Your task to perform on an android device: Open Amazon Image 0: 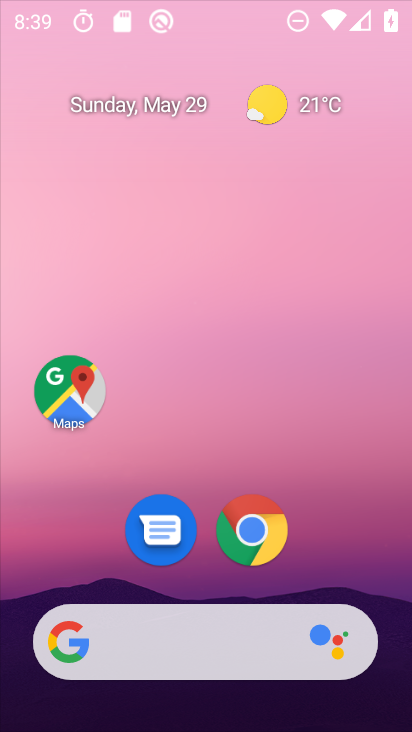
Step 0: click (240, 186)
Your task to perform on an android device: Open Amazon Image 1: 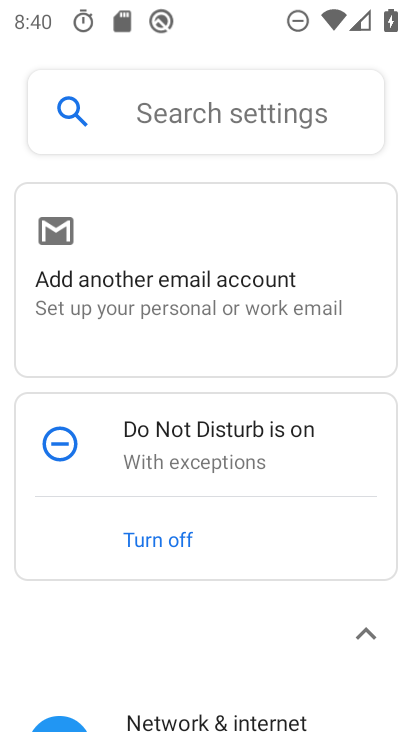
Step 1: press home button
Your task to perform on an android device: Open Amazon Image 2: 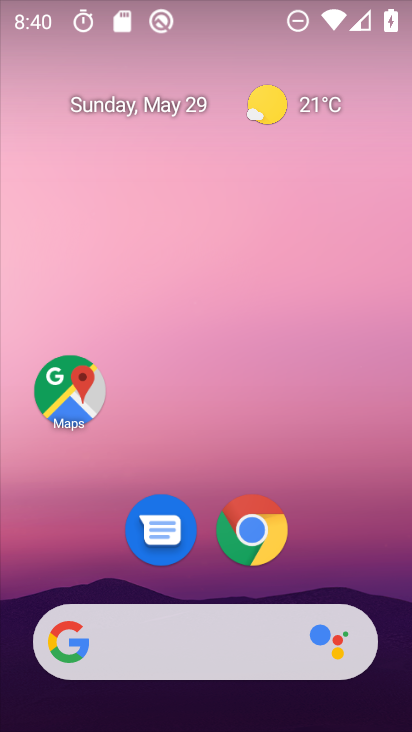
Step 2: click (265, 515)
Your task to perform on an android device: Open Amazon Image 3: 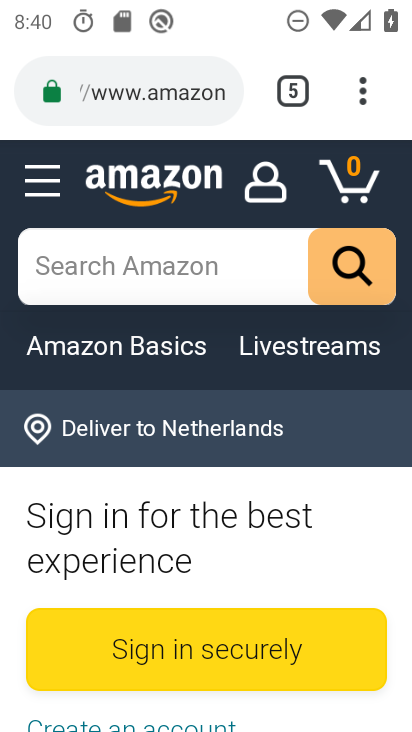
Step 3: click (170, 99)
Your task to perform on an android device: Open Amazon Image 4: 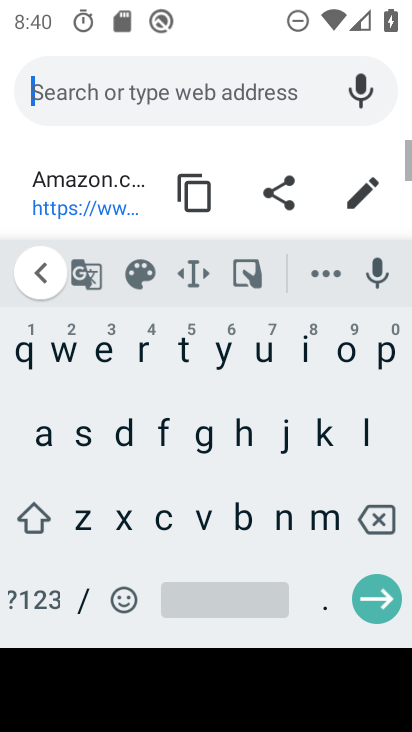
Step 4: click (111, 187)
Your task to perform on an android device: Open Amazon Image 5: 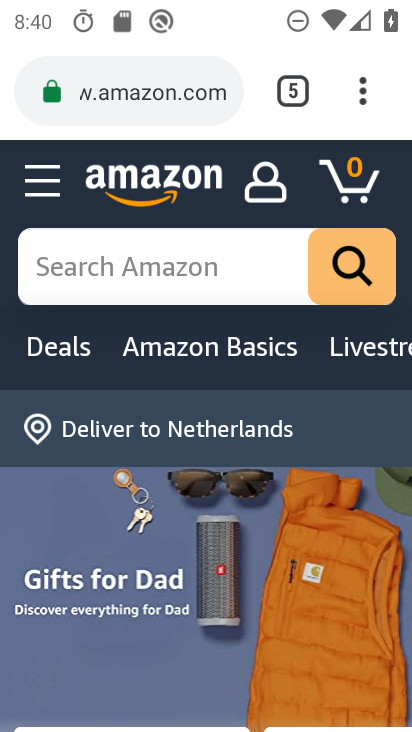
Step 5: task complete